Your task to perform on an android device: Open location settings Image 0: 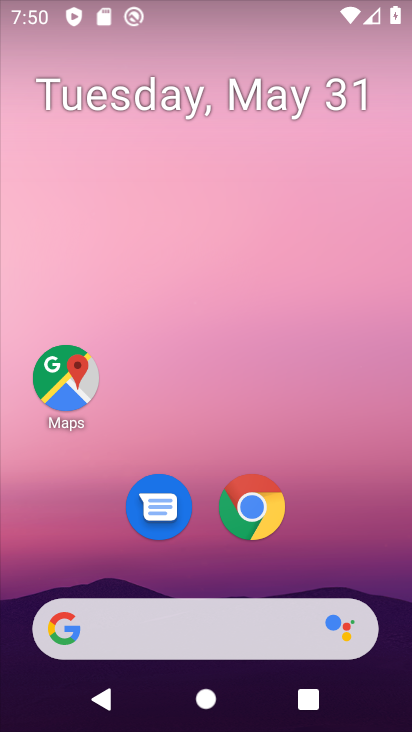
Step 0: drag from (353, 554) to (347, 218)
Your task to perform on an android device: Open location settings Image 1: 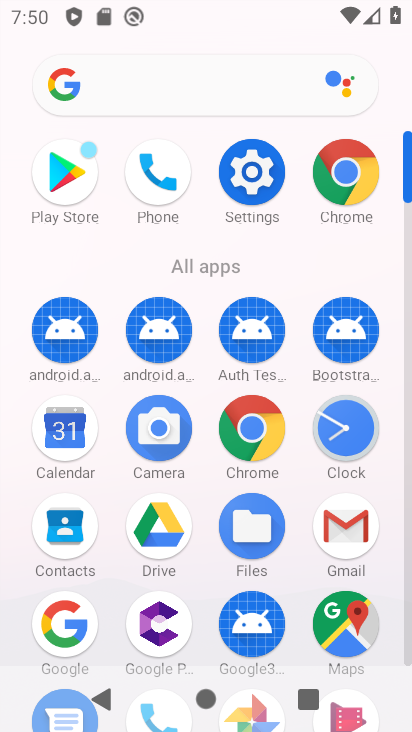
Step 1: click (259, 173)
Your task to perform on an android device: Open location settings Image 2: 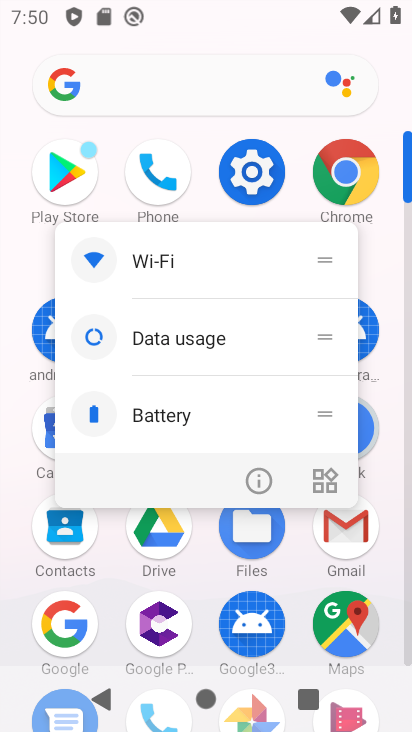
Step 2: click (258, 185)
Your task to perform on an android device: Open location settings Image 3: 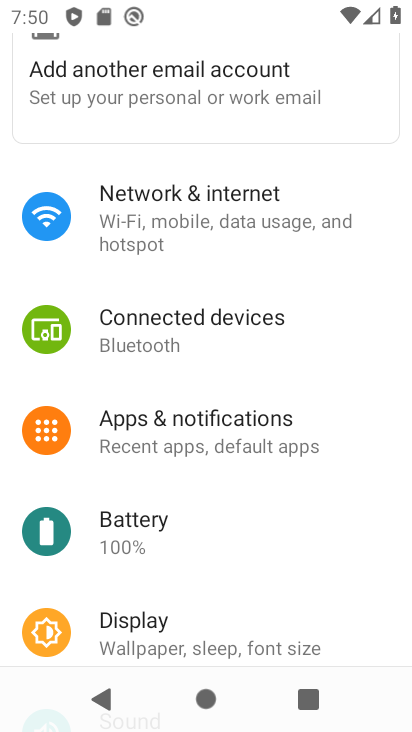
Step 3: drag from (231, 560) to (242, 249)
Your task to perform on an android device: Open location settings Image 4: 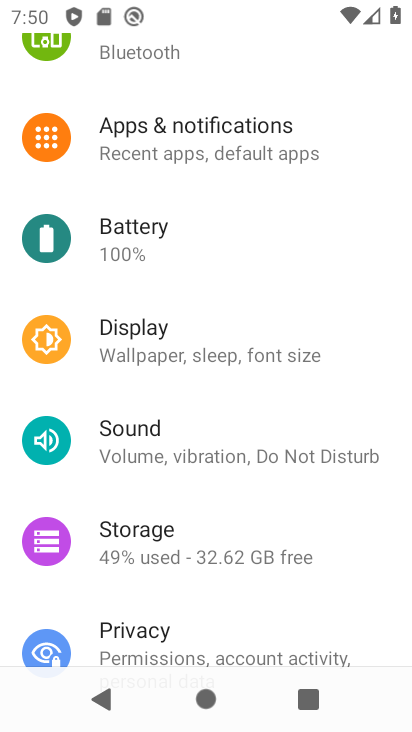
Step 4: drag from (273, 189) to (271, 523)
Your task to perform on an android device: Open location settings Image 5: 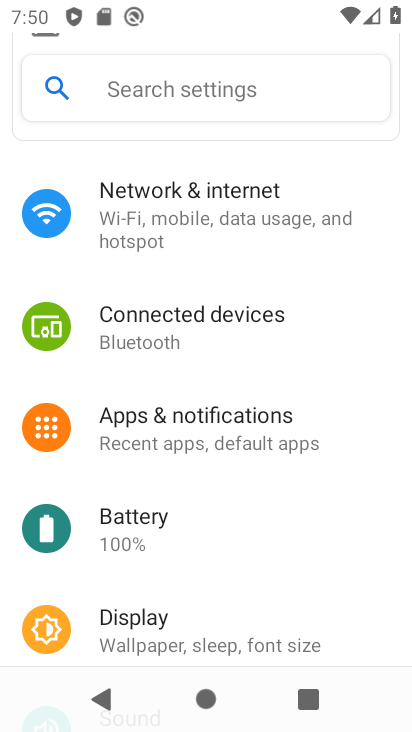
Step 5: drag from (244, 493) to (290, 225)
Your task to perform on an android device: Open location settings Image 6: 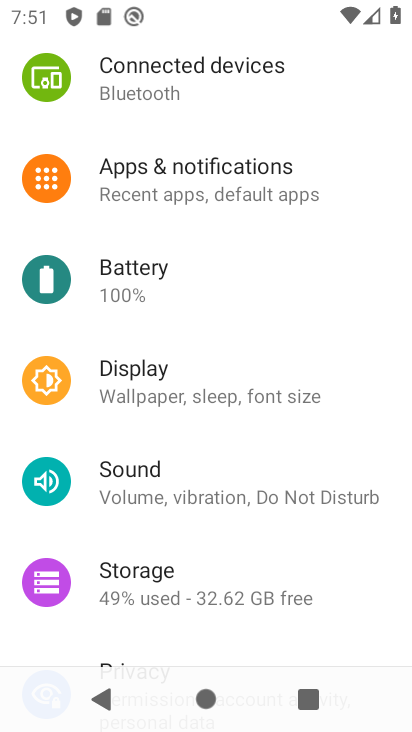
Step 6: drag from (276, 435) to (277, 200)
Your task to perform on an android device: Open location settings Image 7: 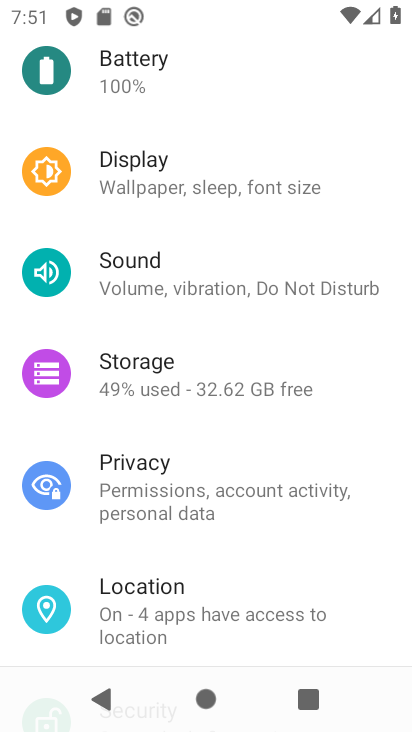
Step 7: click (134, 595)
Your task to perform on an android device: Open location settings Image 8: 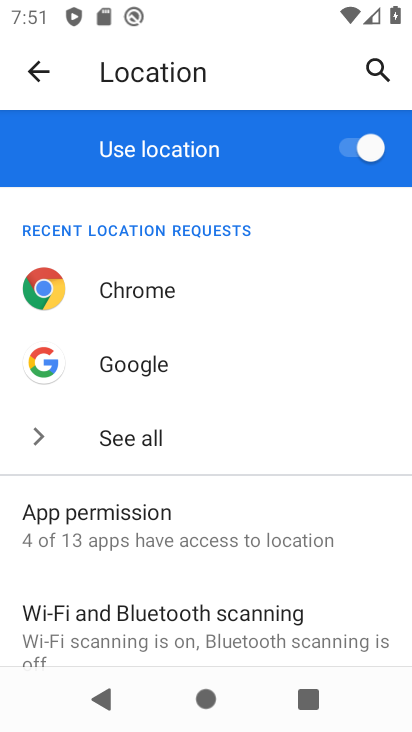
Step 8: task complete